Your task to perform on an android device: Open the Play Movies app and select the watchlist tab. Image 0: 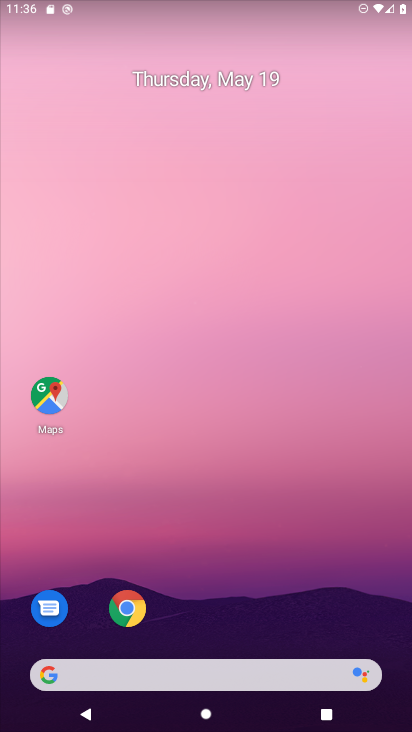
Step 0: press home button
Your task to perform on an android device: Open the Play Movies app and select the watchlist tab. Image 1: 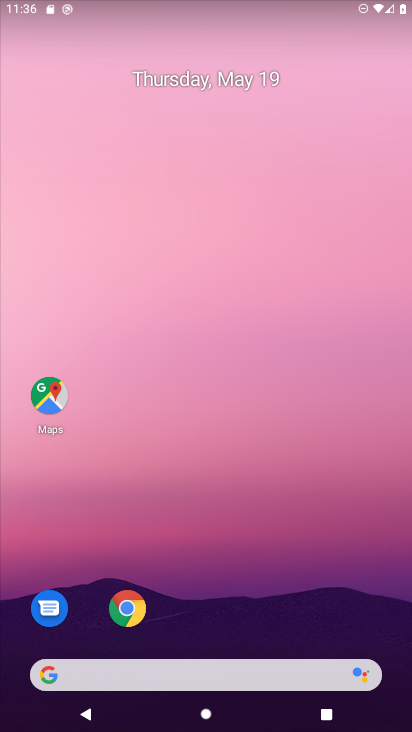
Step 1: drag from (305, 559) to (275, 0)
Your task to perform on an android device: Open the Play Movies app and select the watchlist tab. Image 2: 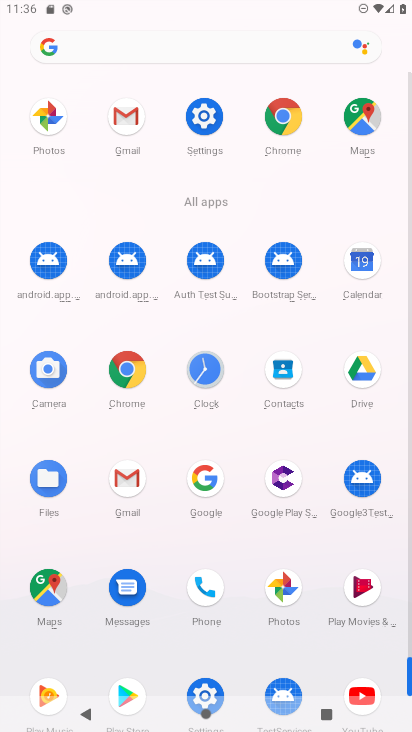
Step 2: click (360, 596)
Your task to perform on an android device: Open the Play Movies app and select the watchlist tab. Image 3: 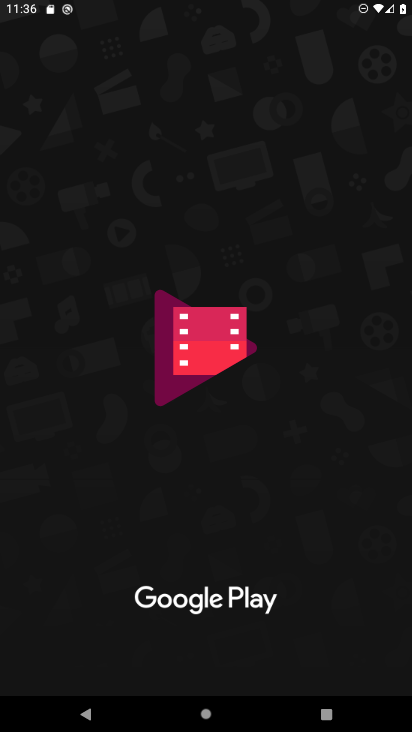
Step 3: click (362, 666)
Your task to perform on an android device: Open the Play Movies app and select the watchlist tab. Image 4: 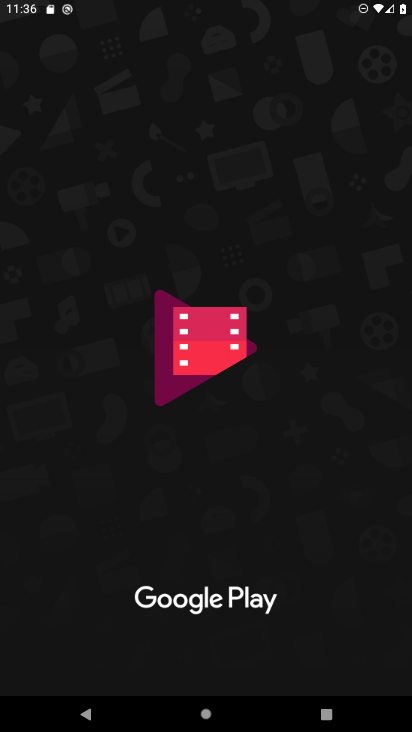
Step 4: click (362, 666)
Your task to perform on an android device: Open the Play Movies app and select the watchlist tab. Image 5: 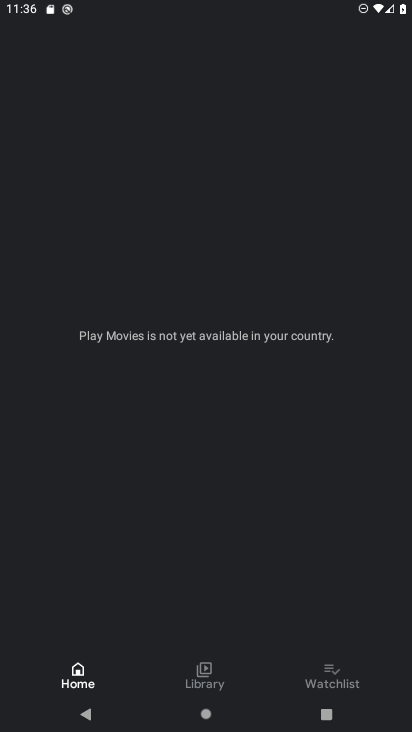
Step 5: click (362, 666)
Your task to perform on an android device: Open the Play Movies app and select the watchlist tab. Image 6: 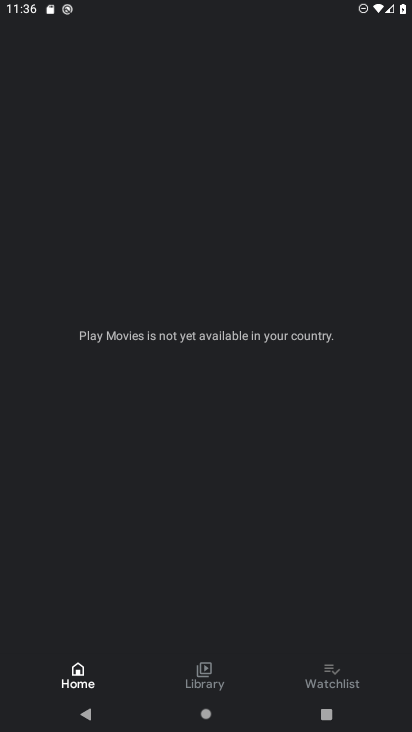
Step 6: click (362, 666)
Your task to perform on an android device: Open the Play Movies app and select the watchlist tab. Image 7: 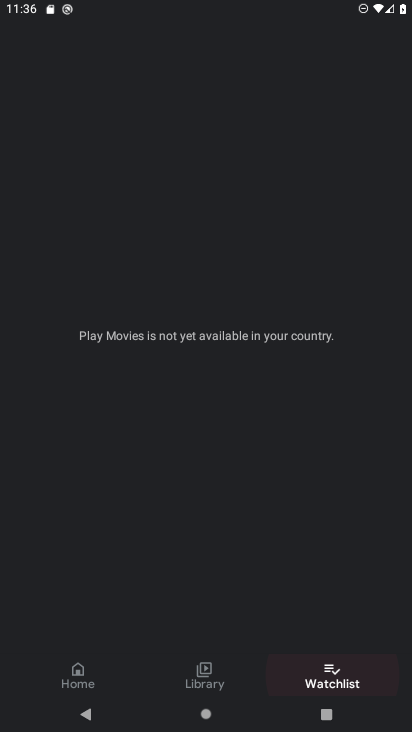
Step 7: click (362, 666)
Your task to perform on an android device: Open the Play Movies app and select the watchlist tab. Image 8: 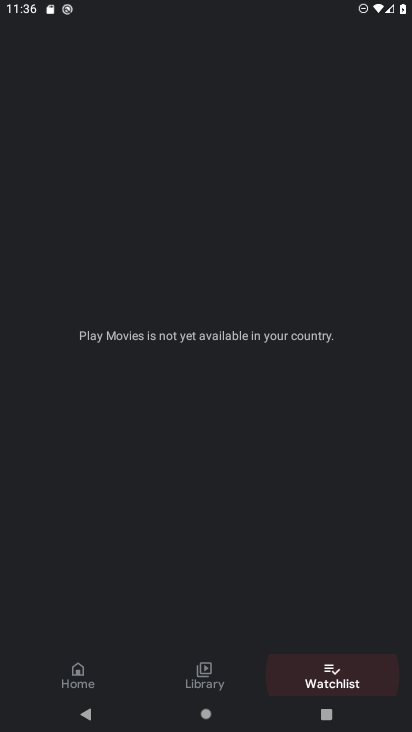
Step 8: click (362, 666)
Your task to perform on an android device: Open the Play Movies app and select the watchlist tab. Image 9: 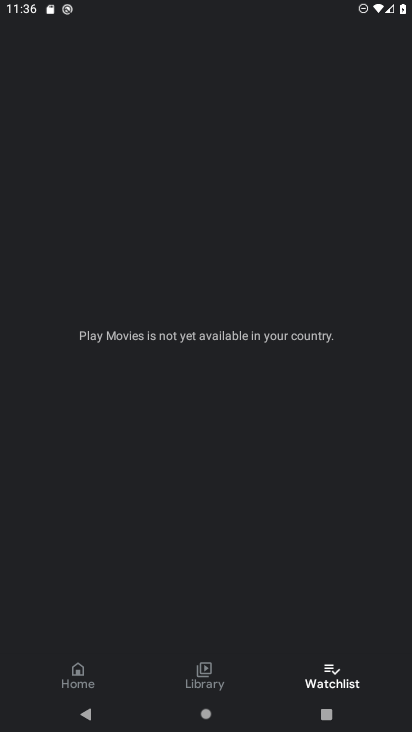
Step 9: task complete